Your task to perform on an android device: Open the stopwatch Image 0: 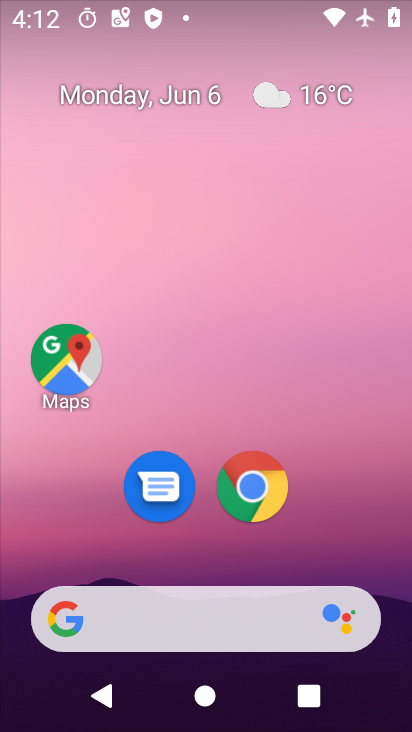
Step 0: drag from (374, 473) to (318, 124)
Your task to perform on an android device: Open the stopwatch Image 1: 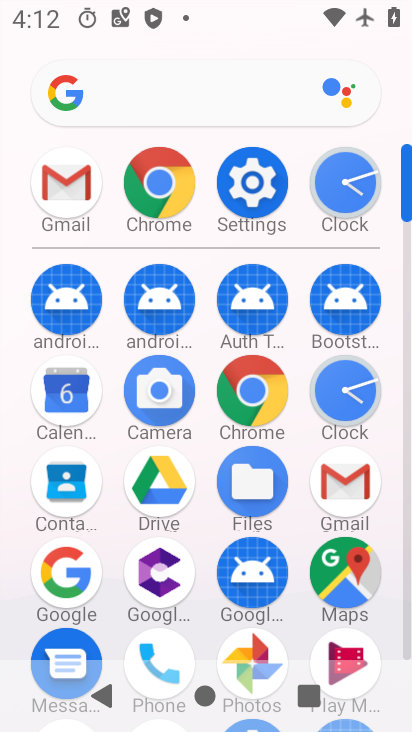
Step 1: click (344, 380)
Your task to perform on an android device: Open the stopwatch Image 2: 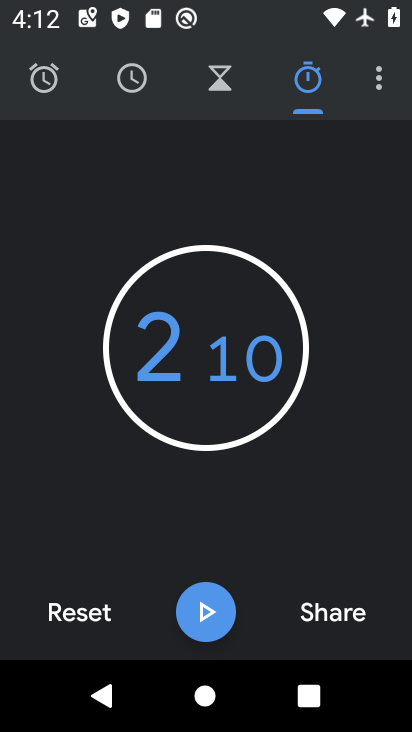
Step 2: task complete